Your task to perform on an android device: change the upload size in google photos Image 0: 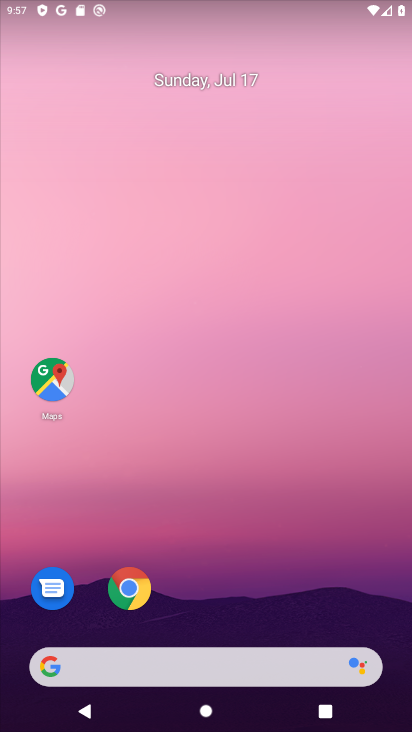
Step 0: drag from (212, 543) to (205, 3)
Your task to perform on an android device: change the upload size in google photos Image 1: 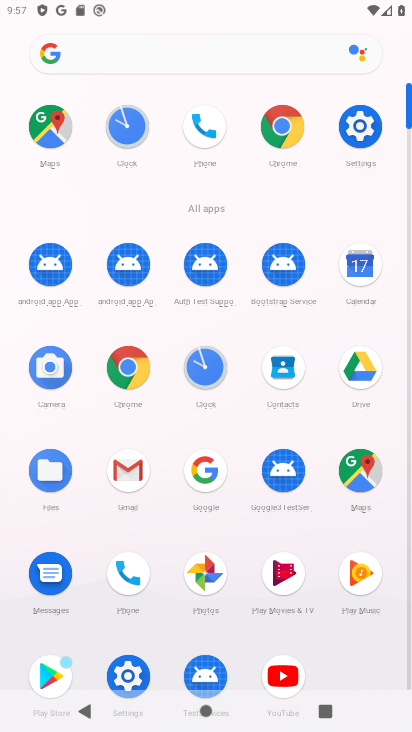
Step 1: click (218, 569)
Your task to perform on an android device: change the upload size in google photos Image 2: 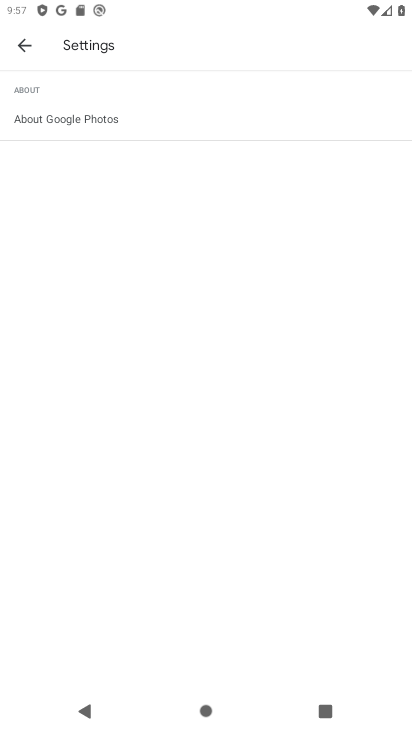
Step 2: click (27, 54)
Your task to perform on an android device: change the upload size in google photos Image 3: 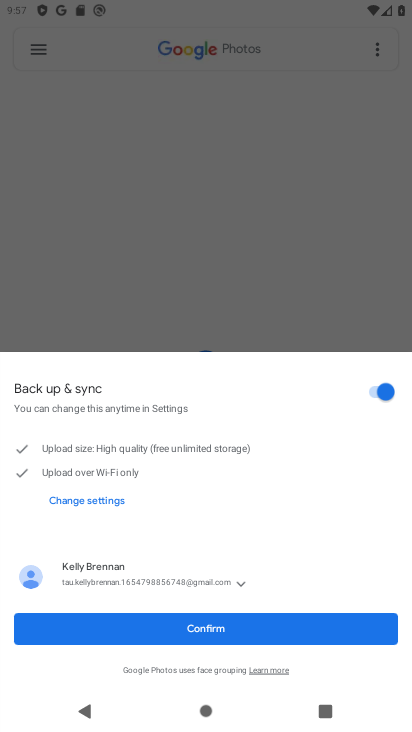
Step 3: click (160, 633)
Your task to perform on an android device: change the upload size in google photos Image 4: 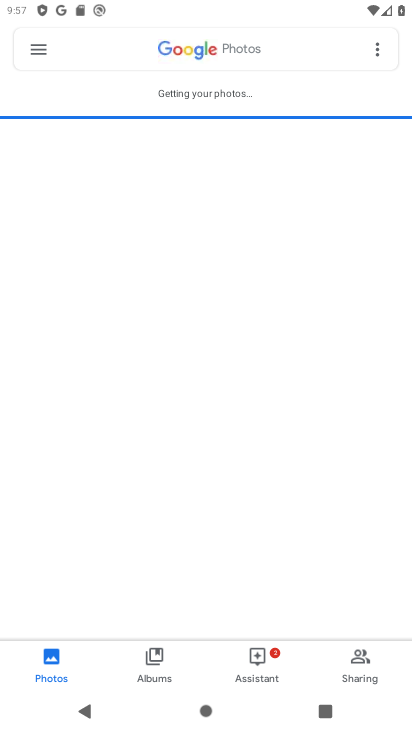
Step 4: click (47, 43)
Your task to perform on an android device: change the upload size in google photos Image 5: 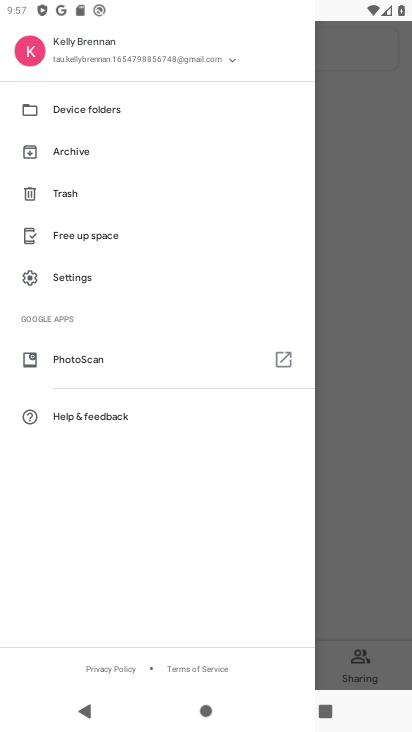
Step 5: click (57, 274)
Your task to perform on an android device: change the upload size in google photos Image 6: 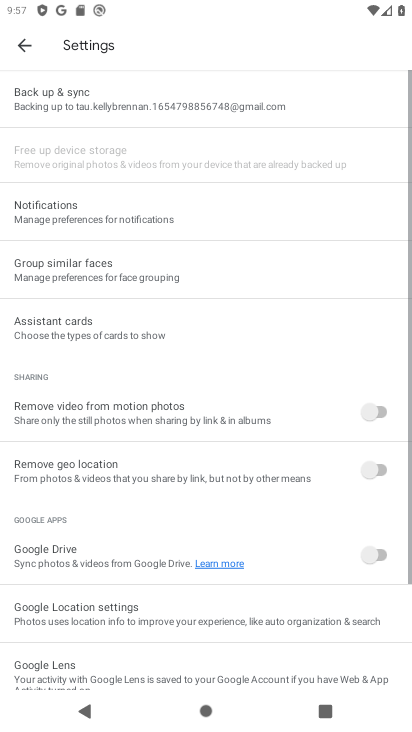
Step 6: click (61, 112)
Your task to perform on an android device: change the upload size in google photos Image 7: 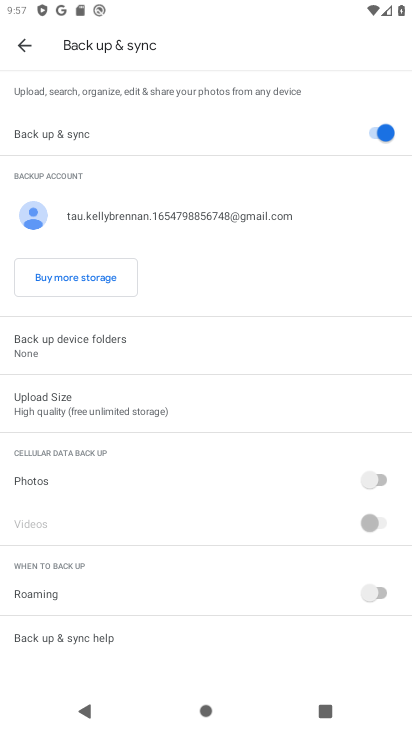
Step 7: click (109, 417)
Your task to perform on an android device: change the upload size in google photos Image 8: 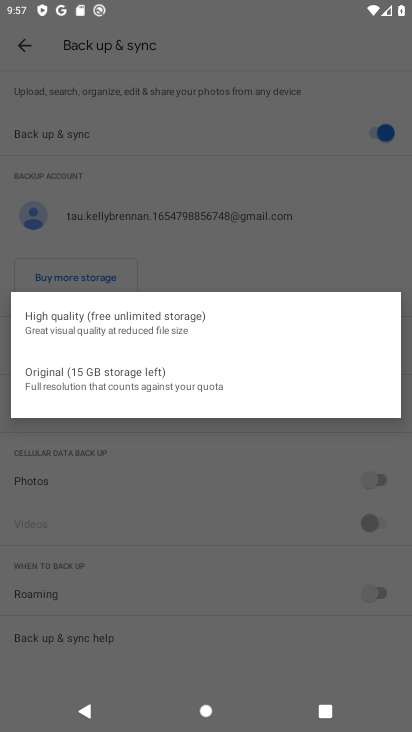
Step 8: click (87, 364)
Your task to perform on an android device: change the upload size in google photos Image 9: 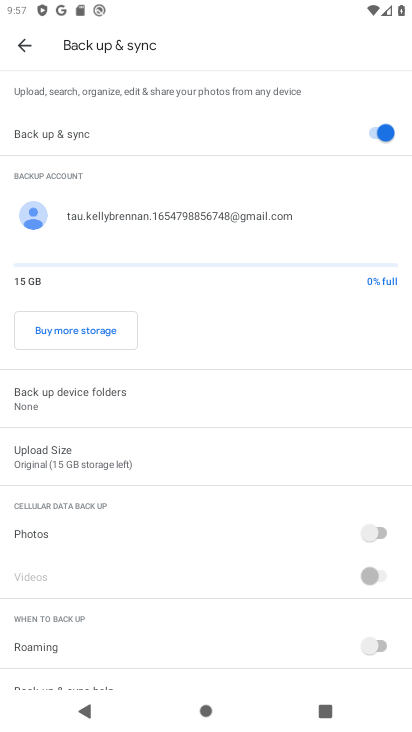
Step 9: task complete